Your task to perform on an android device: show emergency info Image 0: 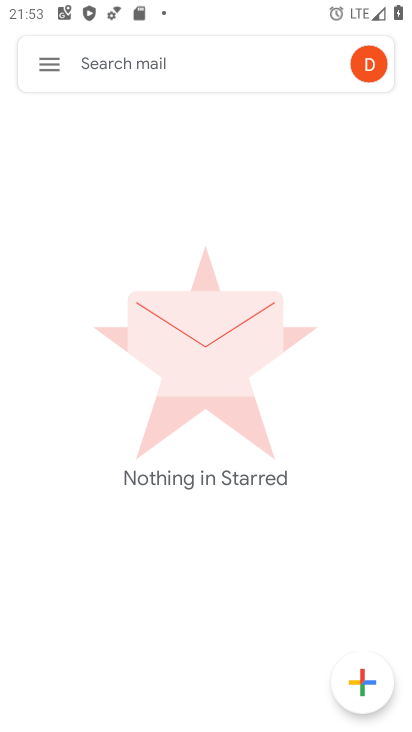
Step 0: press home button
Your task to perform on an android device: show emergency info Image 1: 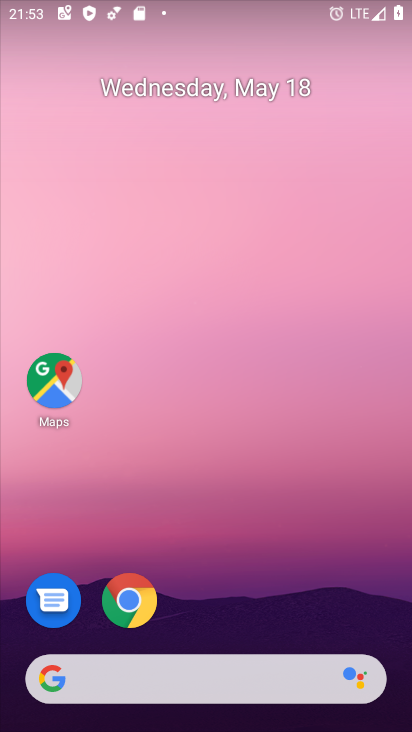
Step 1: drag from (200, 604) to (316, 28)
Your task to perform on an android device: show emergency info Image 2: 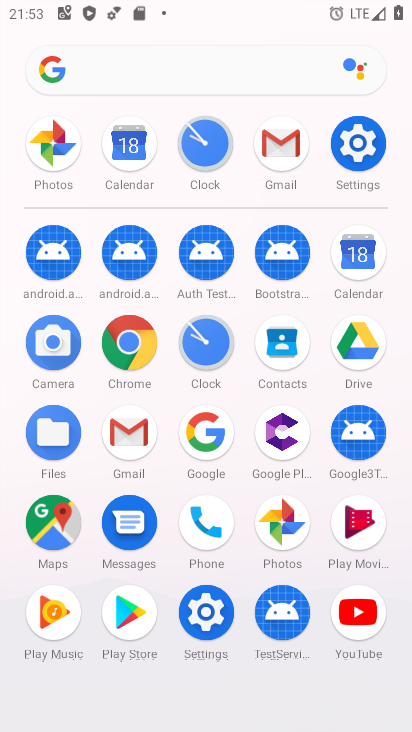
Step 2: click (358, 141)
Your task to perform on an android device: show emergency info Image 3: 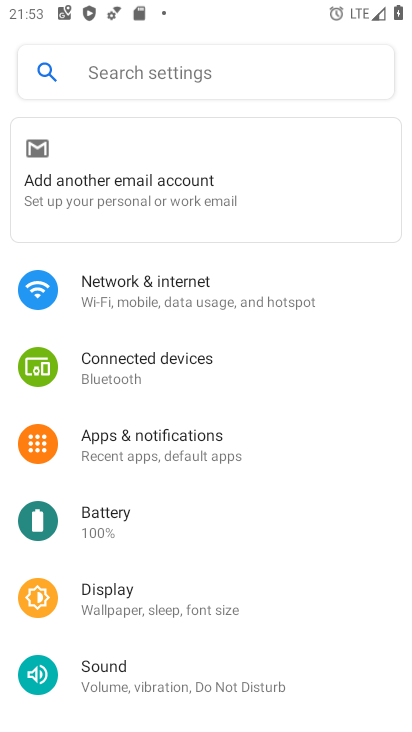
Step 3: drag from (178, 685) to (335, 50)
Your task to perform on an android device: show emergency info Image 4: 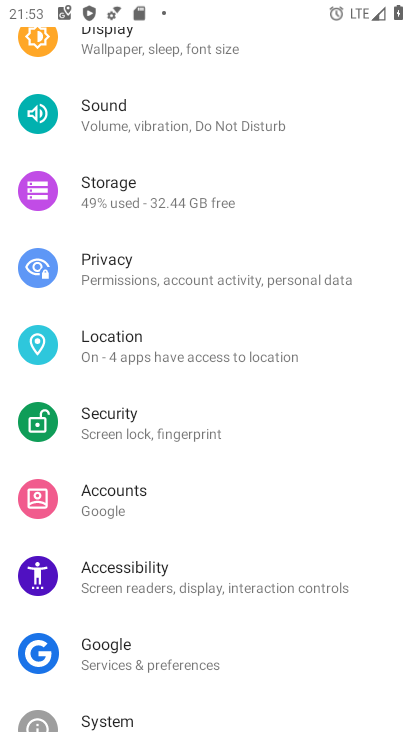
Step 4: drag from (215, 509) to (331, 18)
Your task to perform on an android device: show emergency info Image 5: 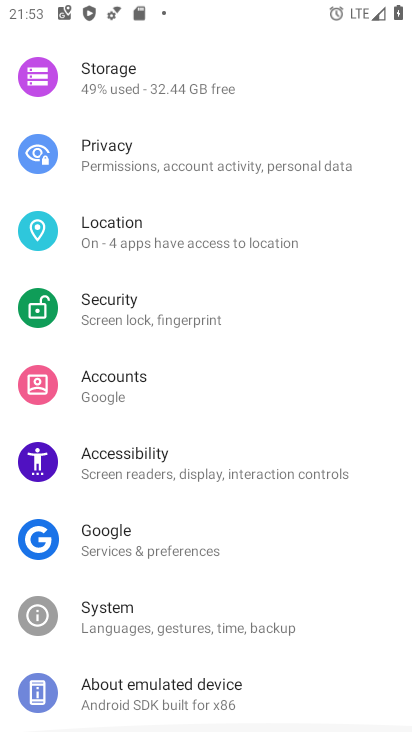
Step 5: drag from (196, 615) to (300, 79)
Your task to perform on an android device: show emergency info Image 6: 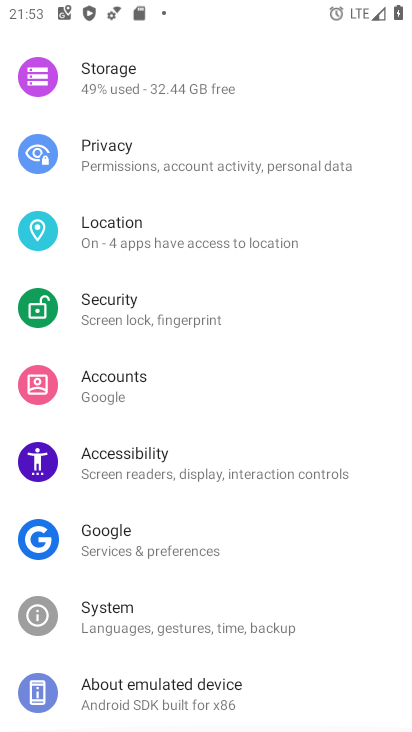
Step 6: click (163, 685)
Your task to perform on an android device: show emergency info Image 7: 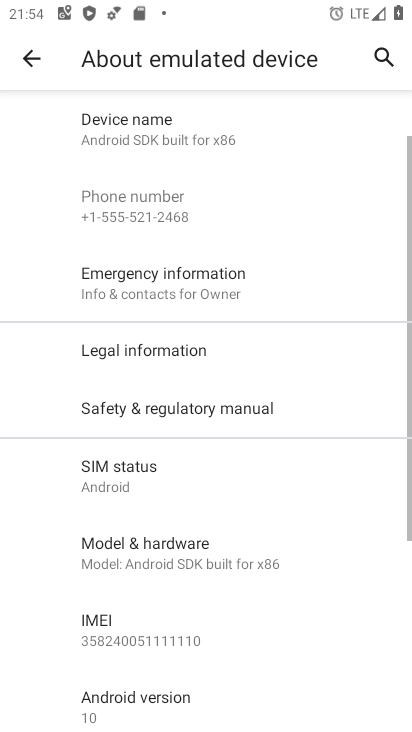
Step 7: click (163, 286)
Your task to perform on an android device: show emergency info Image 8: 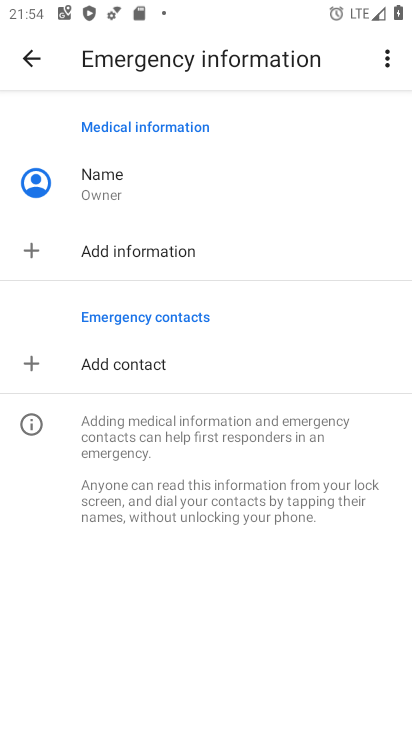
Step 8: task complete